Your task to perform on an android device: see tabs open on other devices in the chrome app Image 0: 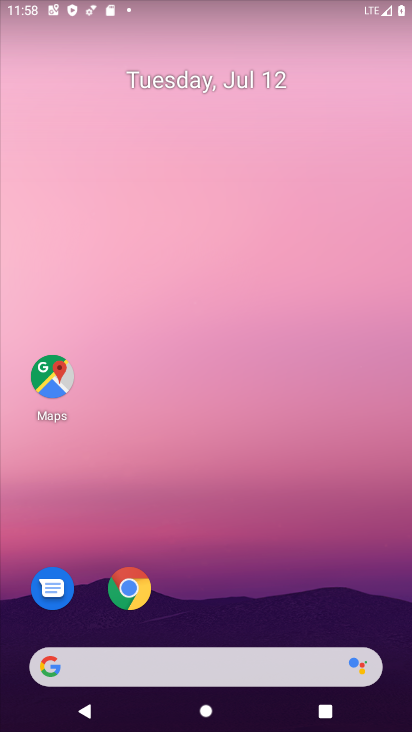
Step 0: click (139, 588)
Your task to perform on an android device: see tabs open on other devices in the chrome app Image 1: 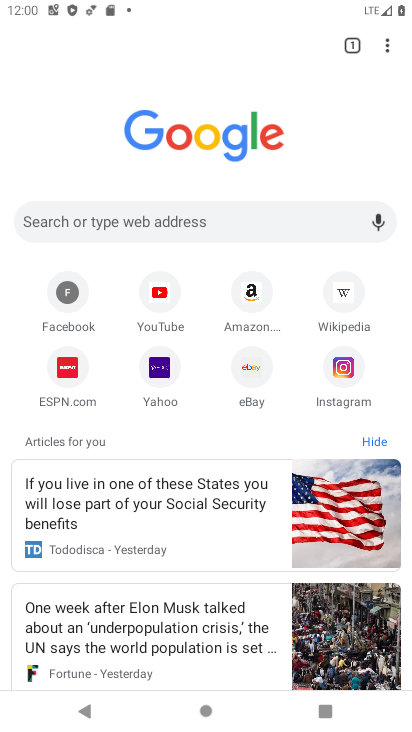
Step 1: click (382, 39)
Your task to perform on an android device: see tabs open on other devices in the chrome app Image 2: 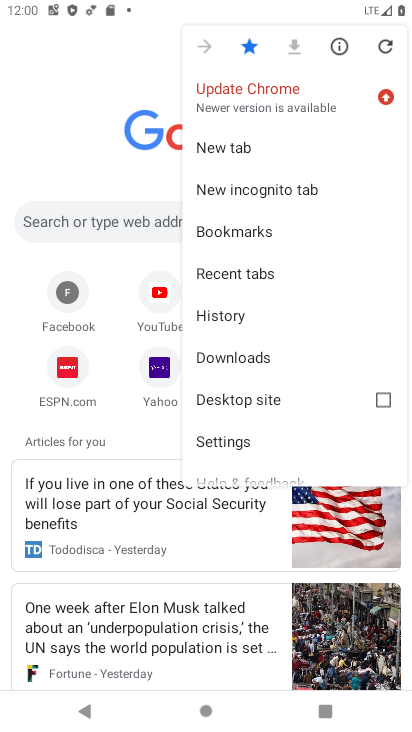
Step 2: click (220, 273)
Your task to perform on an android device: see tabs open on other devices in the chrome app Image 3: 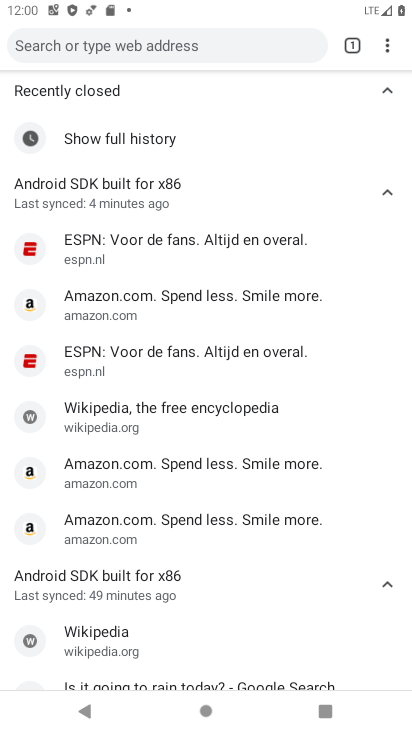
Step 3: task complete